Your task to perform on an android device: check android version Image 0: 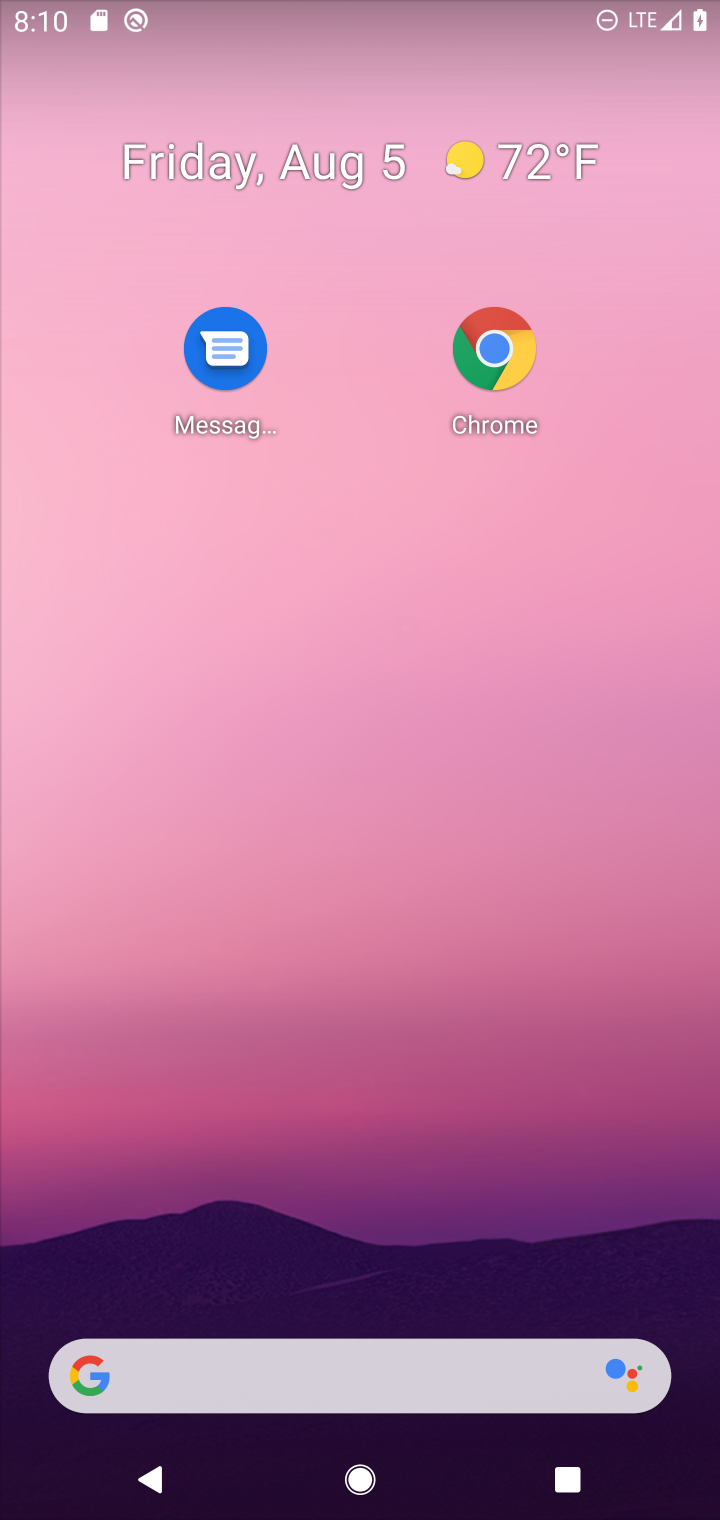
Step 0: drag from (481, 1412) to (400, 234)
Your task to perform on an android device: check android version Image 1: 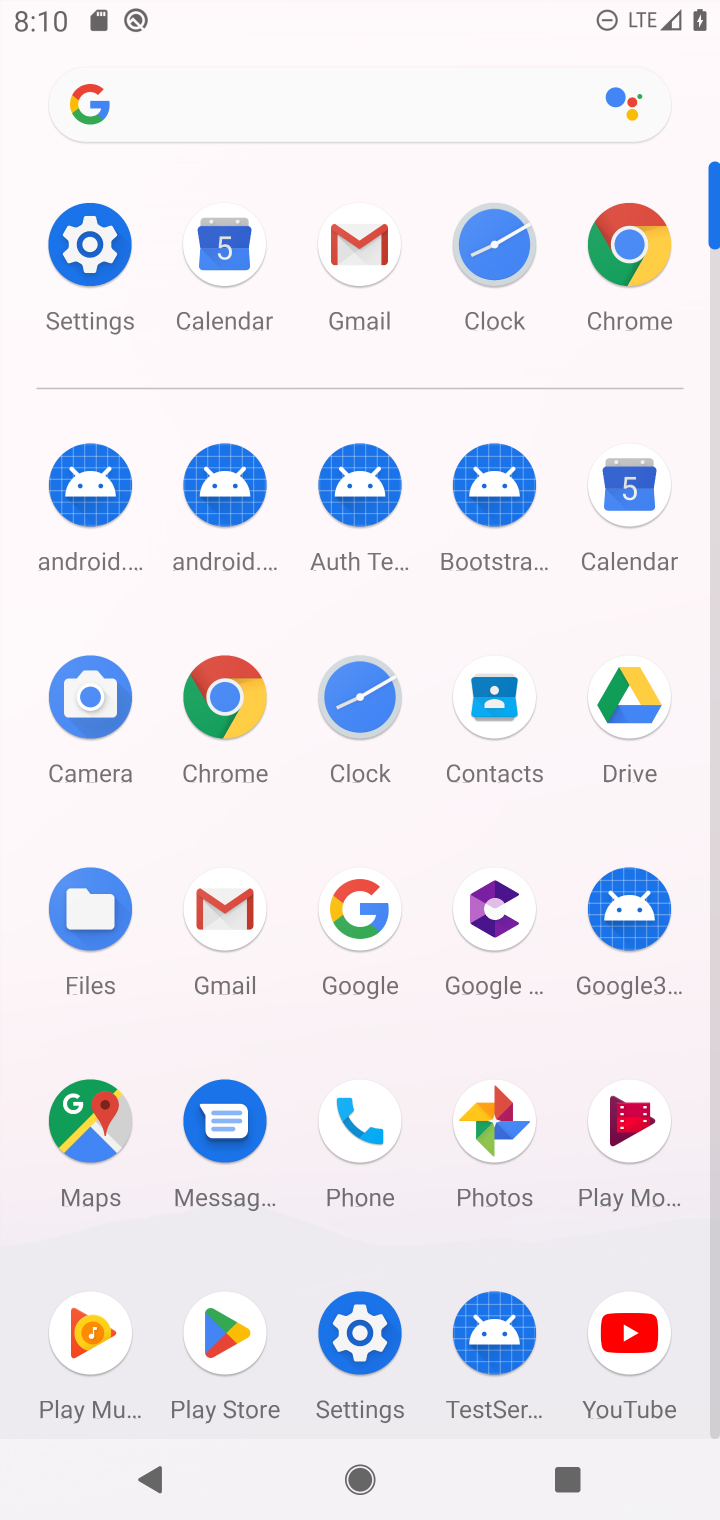
Step 1: click (77, 254)
Your task to perform on an android device: check android version Image 2: 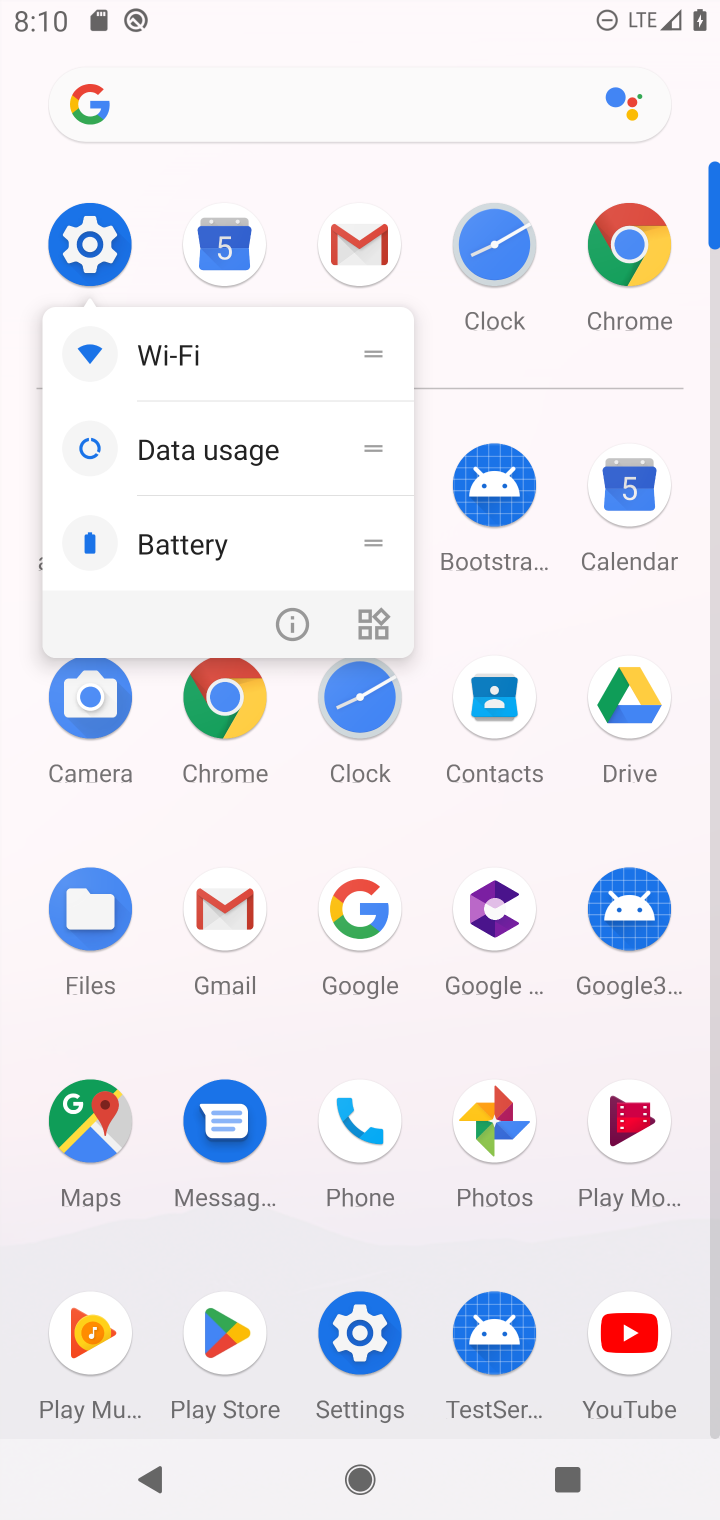
Step 2: click (86, 255)
Your task to perform on an android device: check android version Image 3: 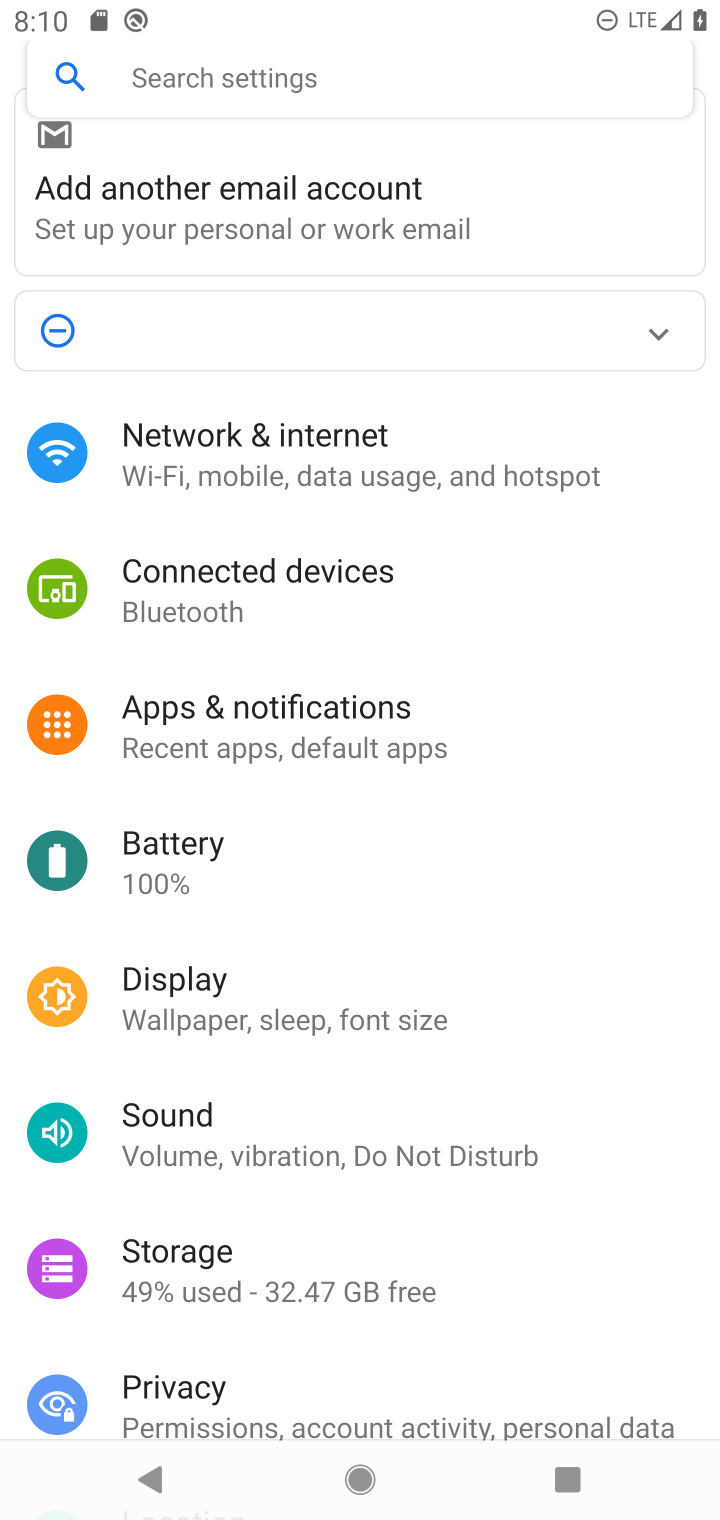
Step 3: click (227, 73)
Your task to perform on an android device: check android version Image 4: 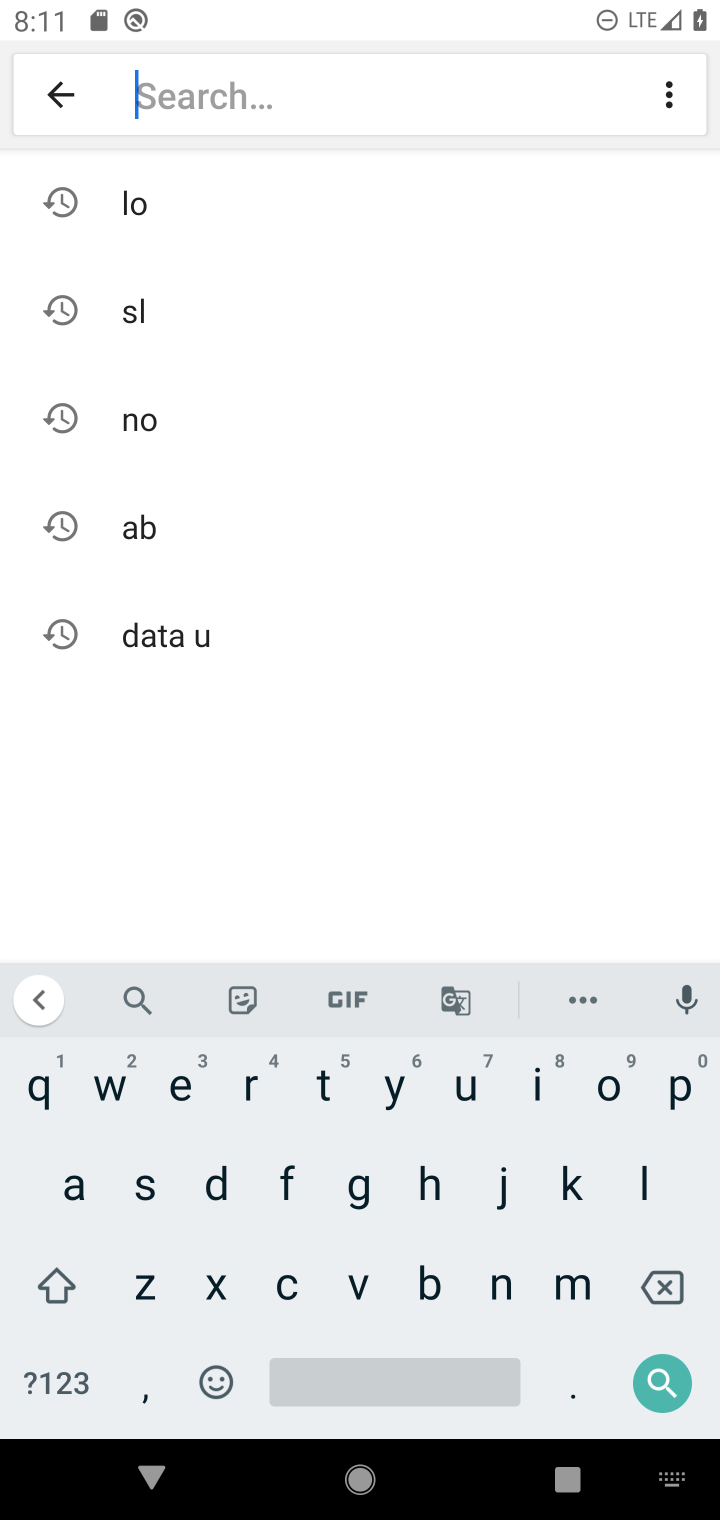
Step 4: click (71, 1174)
Your task to perform on an android device: check android version Image 5: 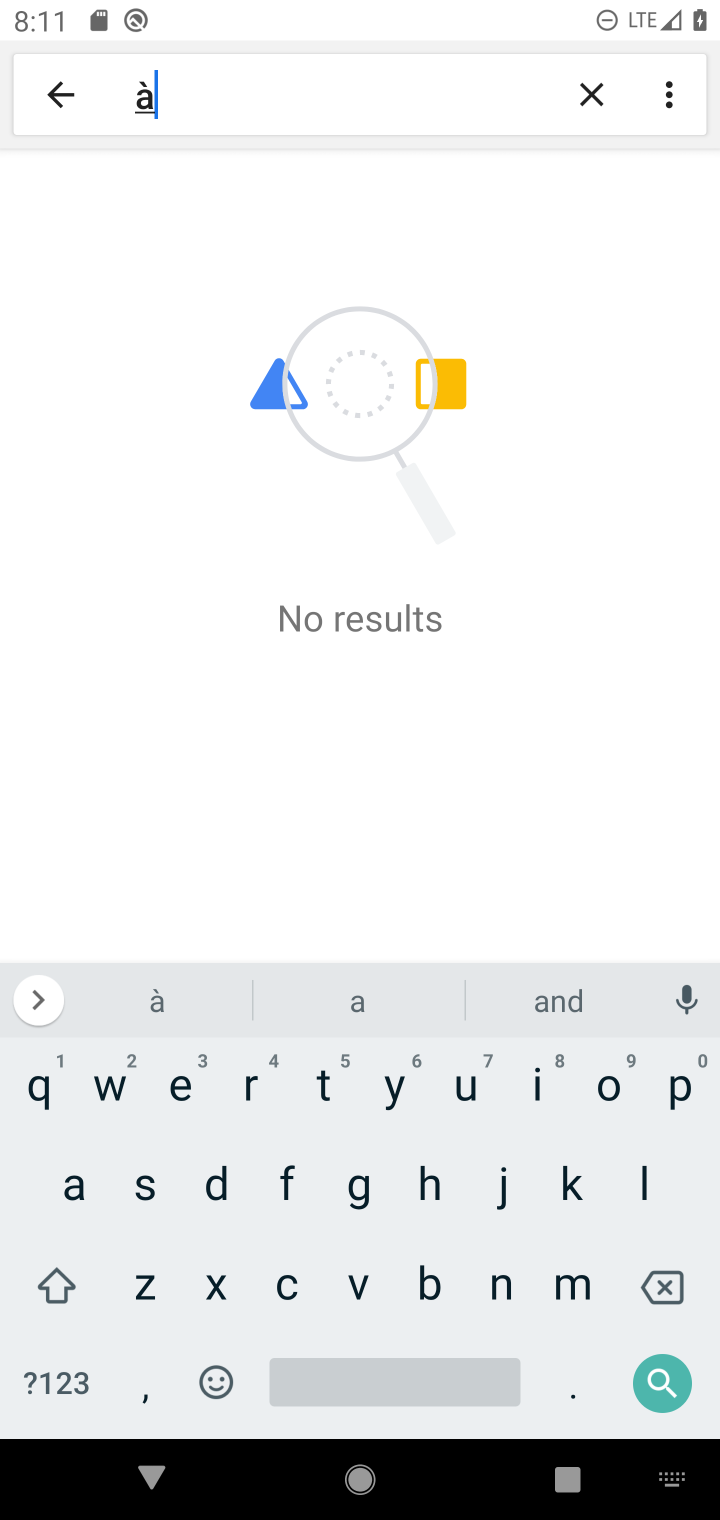
Step 5: click (685, 1290)
Your task to perform on an android device: check android version Image 6: 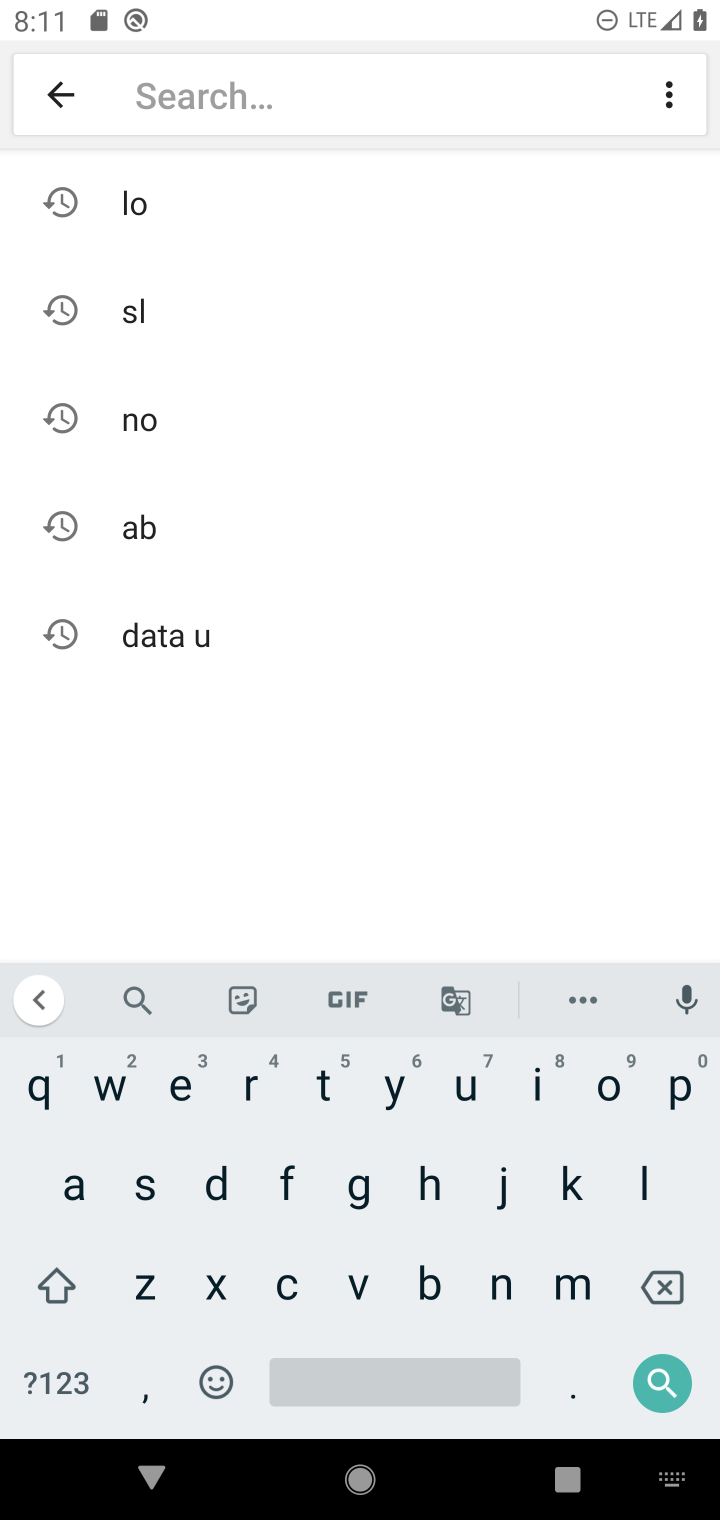
Step 6: click (58, 1168)
Your task to perform on an android device: check android version Image 7: 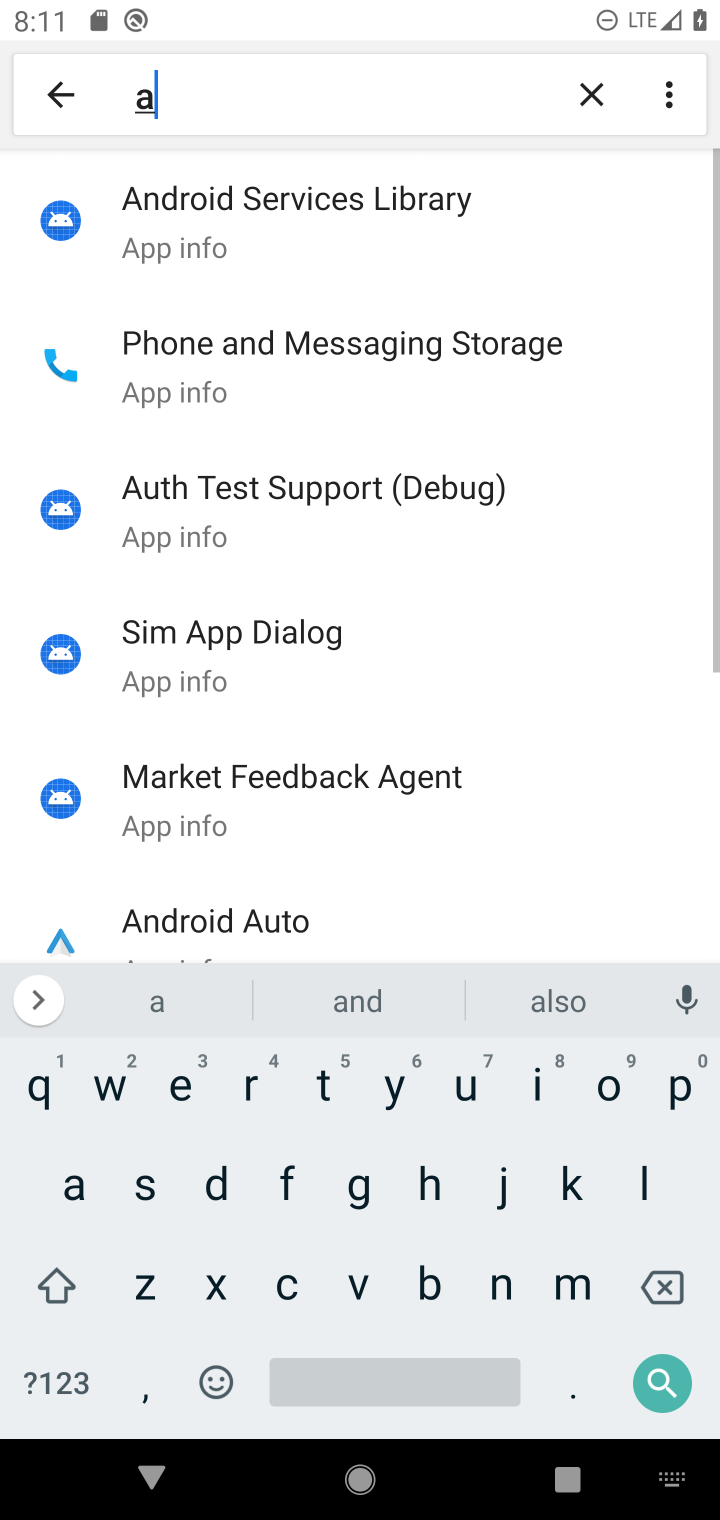
Step 7: click (495, 1277)
Your task to perform on an android device: check android version Image 8: 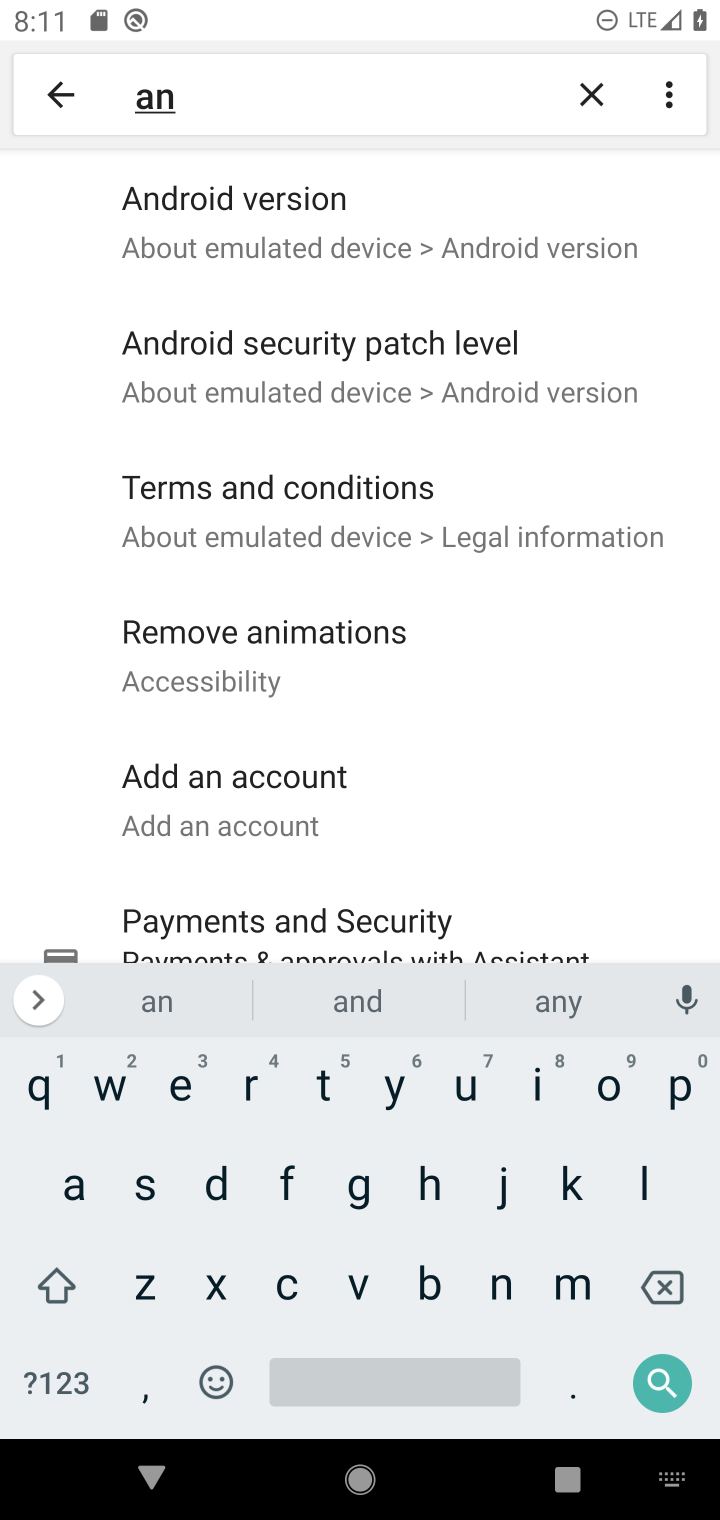
Step 8: click (246, 232)
Your task to perform on an android device: check android version Image 9: 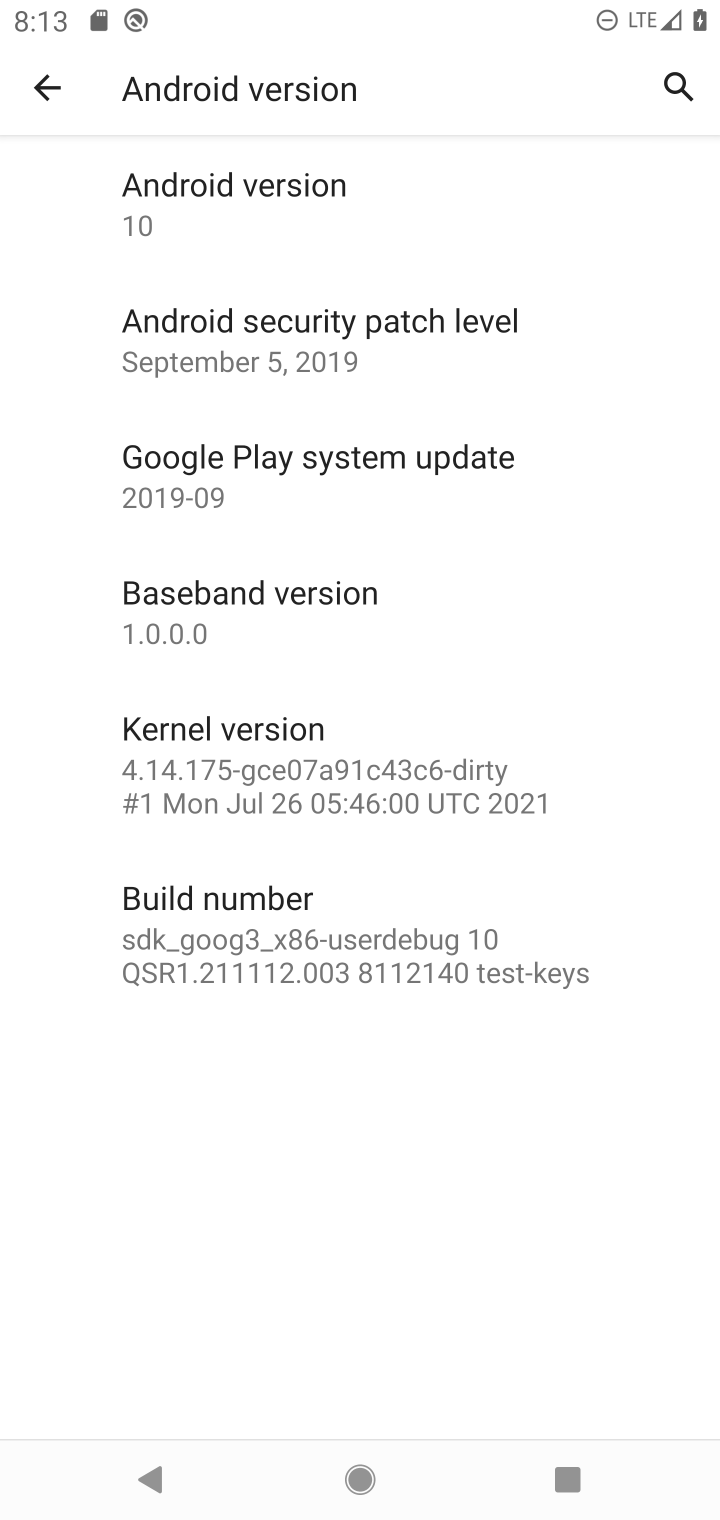
Step 9: task complete